Your task to perform on an android device: See recent photos Image 0: 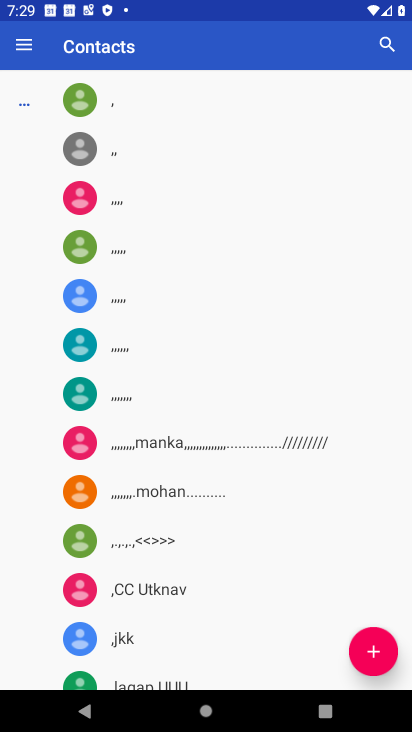
Step 0: press home button
Your task to perform on an android device: See recent photos Image 1: 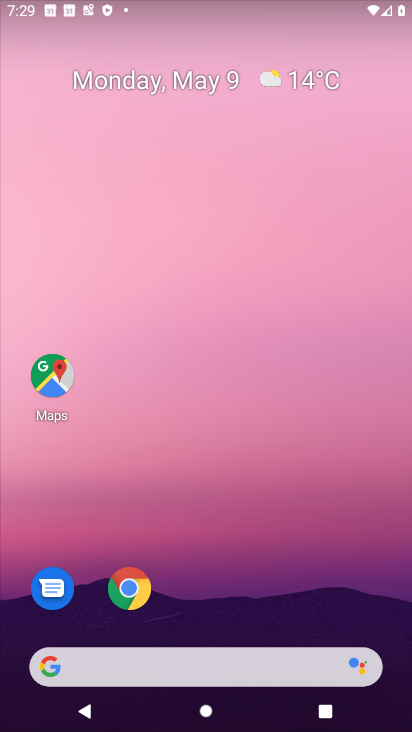
Step 1: drag from (306, 600) to (294, 118)
Your task to perform on an android device: See recent photos Image 2: 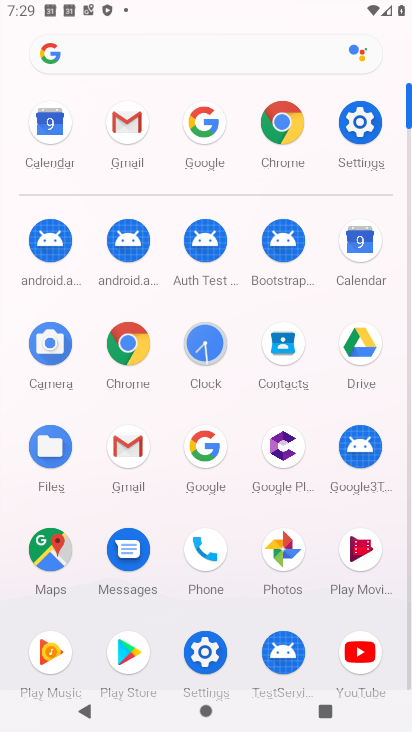
Step 2: click (269, 558)
Your task to perform on an android device: See recent photos Image 3: 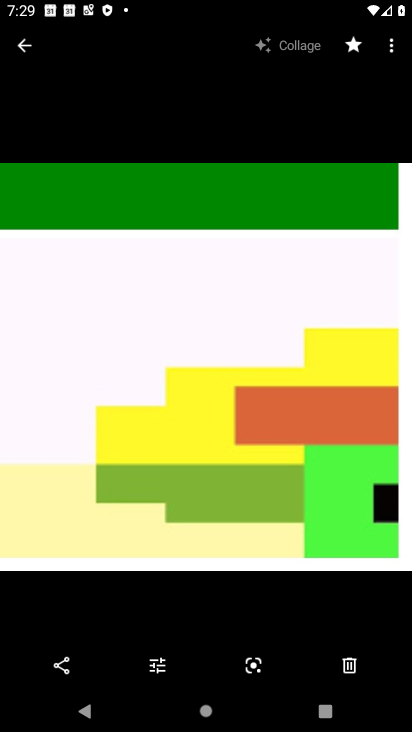
Step 3: press back button
Your task to perform on an android device: See recent photos Image 4: 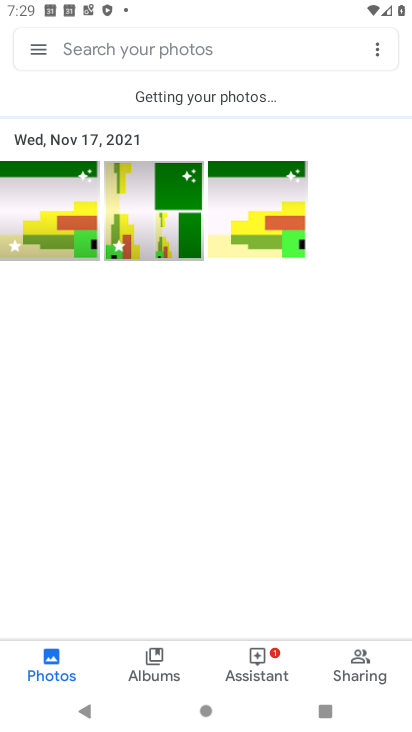
Step 4: click (63, 248)
Your task to perform on an android device: See recent photos Image 5: 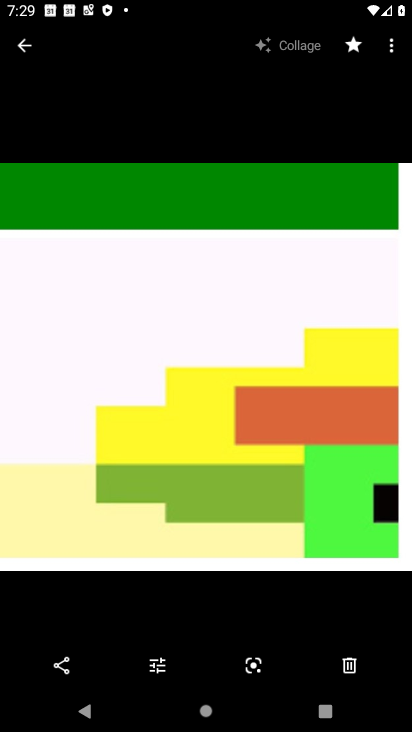
Step 5: task complete